Your task to perform on an android device: What is the recent news? Image 0: 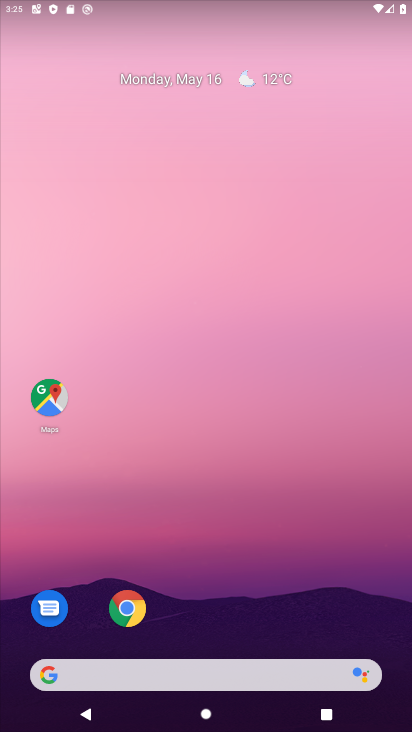
Step 0: click (123, 607)
Your task to perform on an android device: What is the recent news? Image 1: 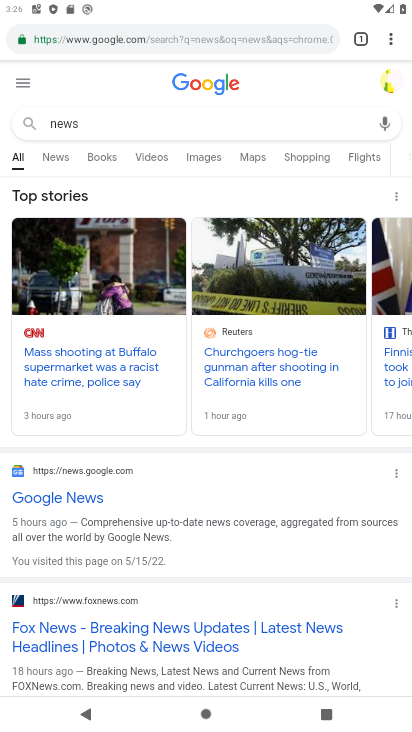
Step 1: click (143, 38)
Your task to perform on an android device: What is the recent news? Image 2: 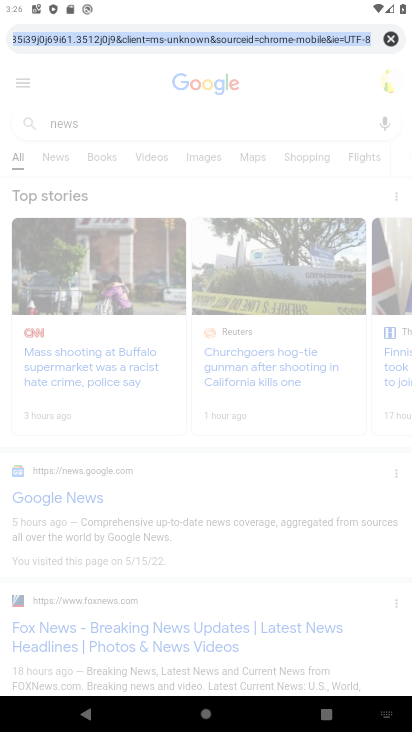
Step 2: type "recent news"
Your task to perform on an android device: What is the recent news? Image 3: 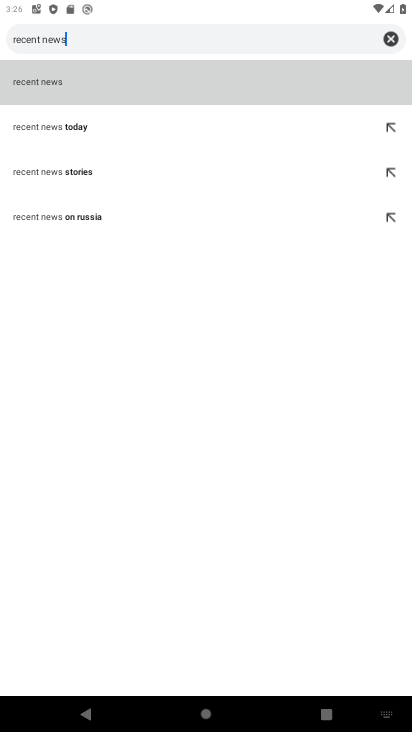
Step 3: click (150, 93)
Your task to perform on an android device: What is the recent news? Image 4: 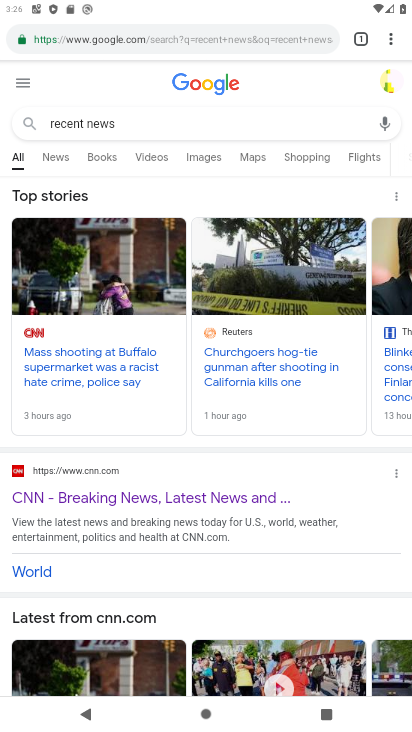
Step 4: task complete